Your task to perform on an android device: Open calendar and show me the second week of next month Image 0: 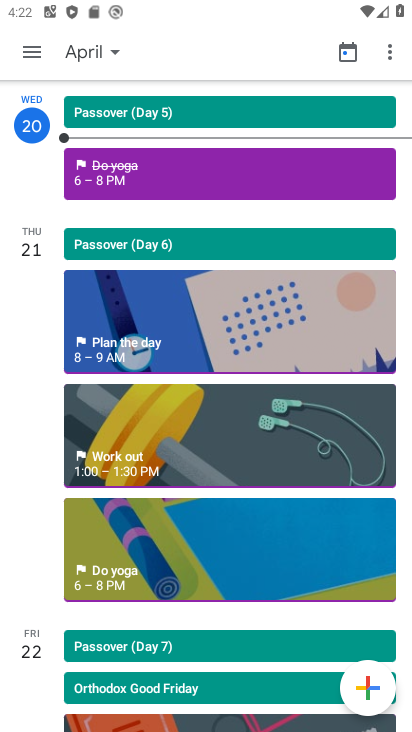
Step 0: press home button
Your task to perform on an android device: Open calendar and show me the second week of next month Image 1: 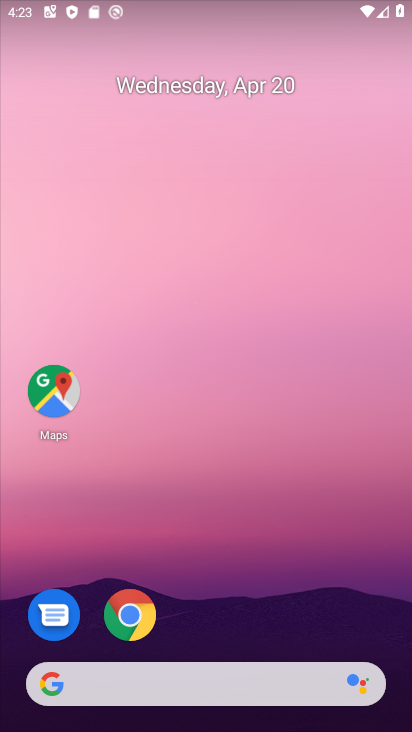
Step 1: drag from (186, 622) to (296, 161)
Your task to perform on an android device: Open calendar and show me the second week of next month Image 2: 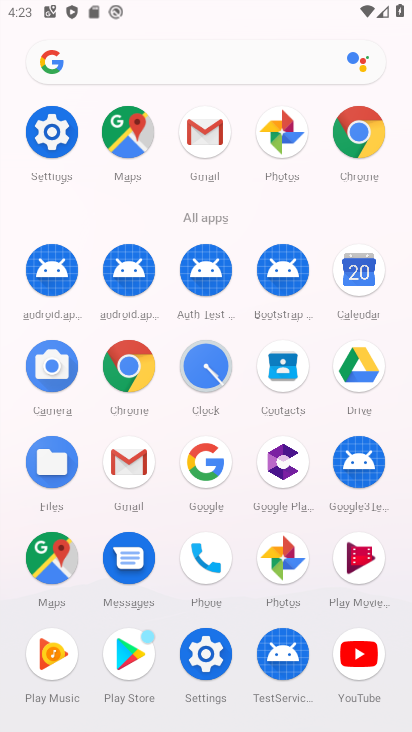
Step 2: click (356, 283)
Your task to perform on an android device: Open calendar and show me the second week of next month Image 3: 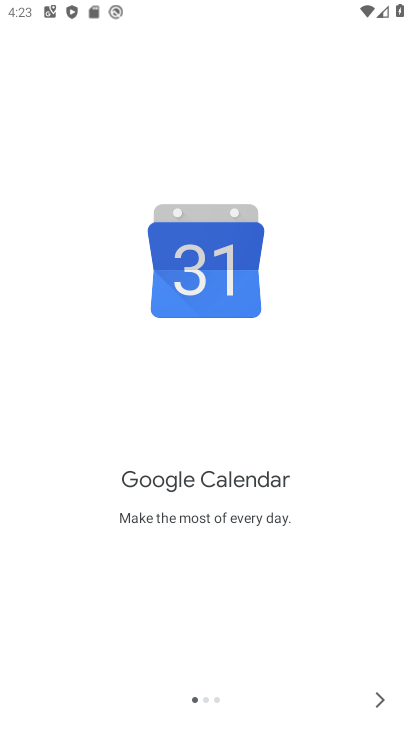
Step 3: click (374, 706)
Your task to perform on an android device: Open calendar and show me the second week of next month Image 4: 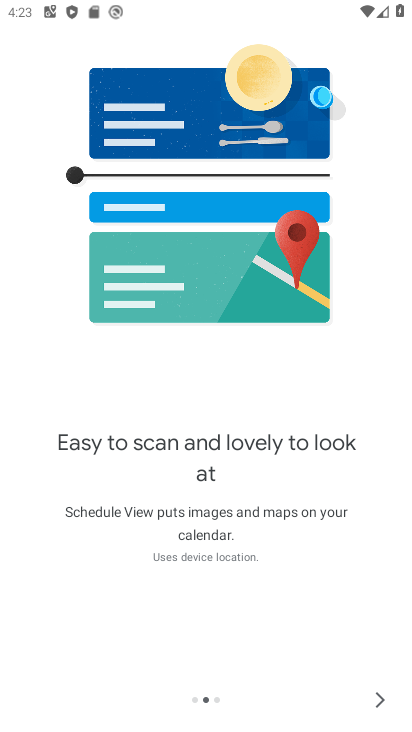
Step 4: click (370, 699)
Your task to perform on an android device: Open calendar and show me the second week of next month Image 5: 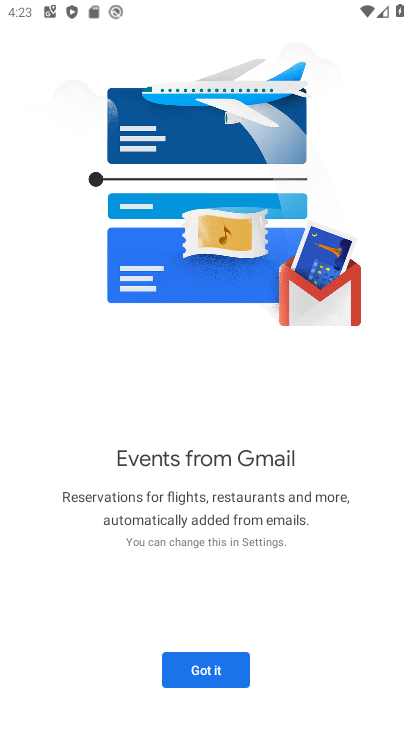
Step 5: click (223, 679)
Your task to perform on an android device: Open calendar and show me the second week of next month Image 6: 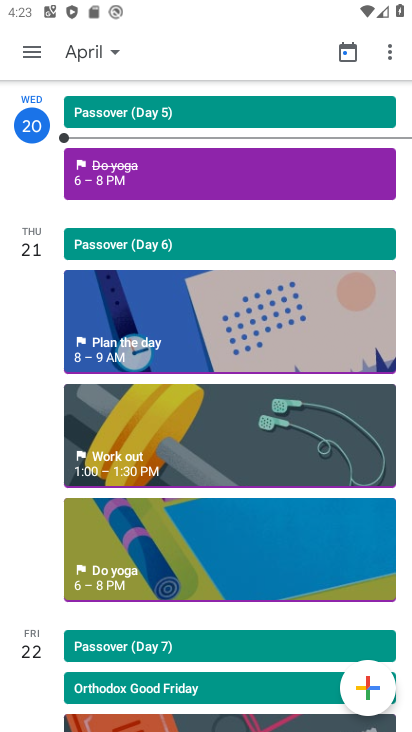
Step 6: click (32, 38)
Your task to perform on an android device: Open calendar and show me the second week of next month Image 7: 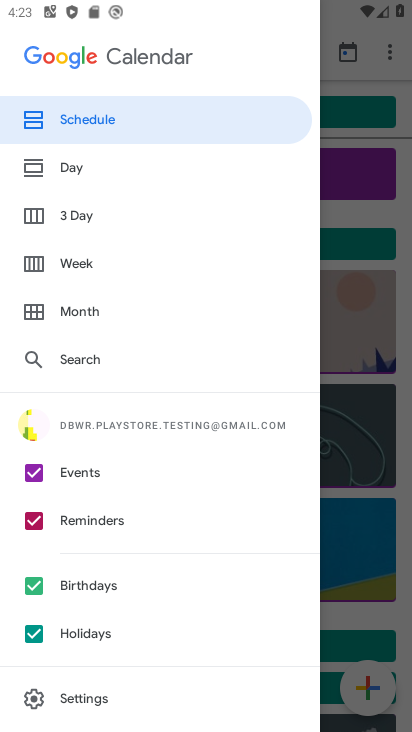
Step 7: click (98, 263)
Your task to perform on an android device: Open calendar and show me the second week of next month Image 8: 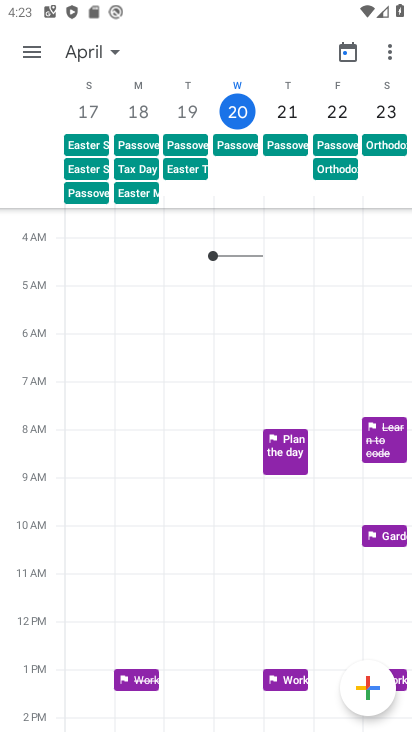
Step 8: task complete